Your task to perform on an android device: open sync settings in chrome Image 0: 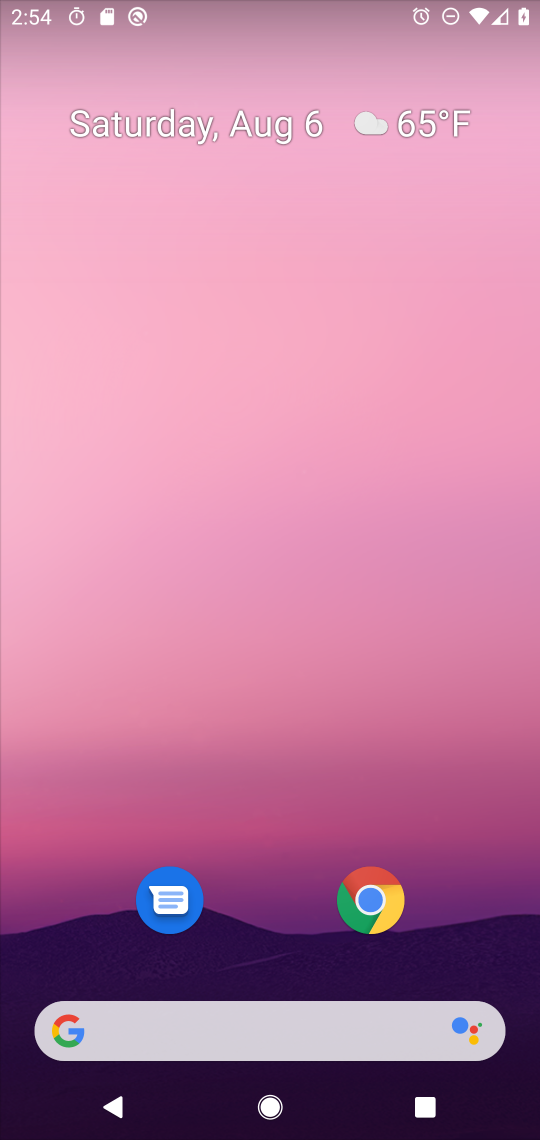
Step 0: click (370, 901)
Your task to perform on an android device: open sync settings in chrome Image 1: 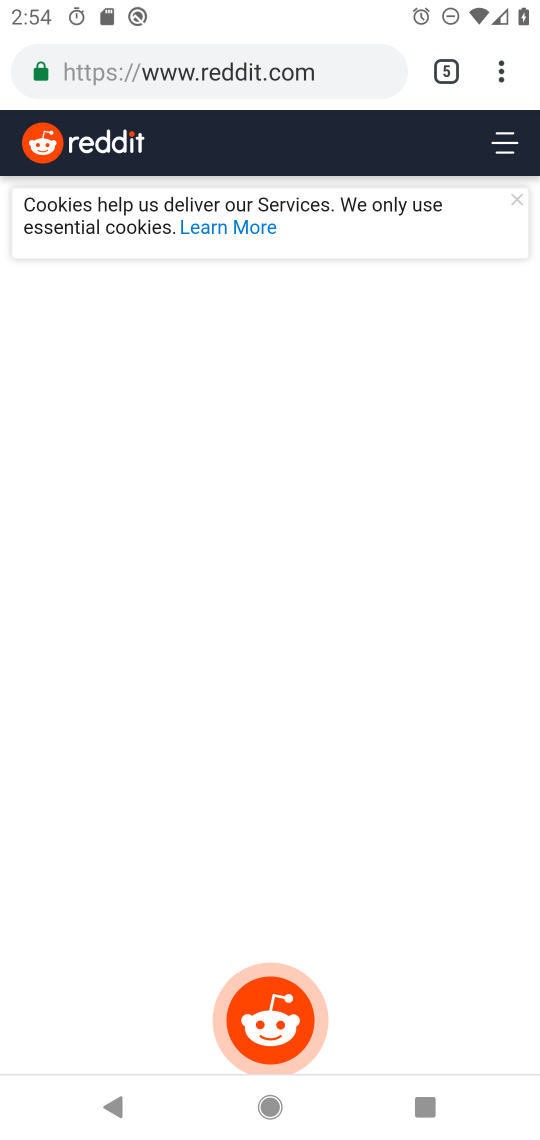
Step 1: click (500, 76)
Your task to perform on an android device: open sync settings in chrome Image 2: 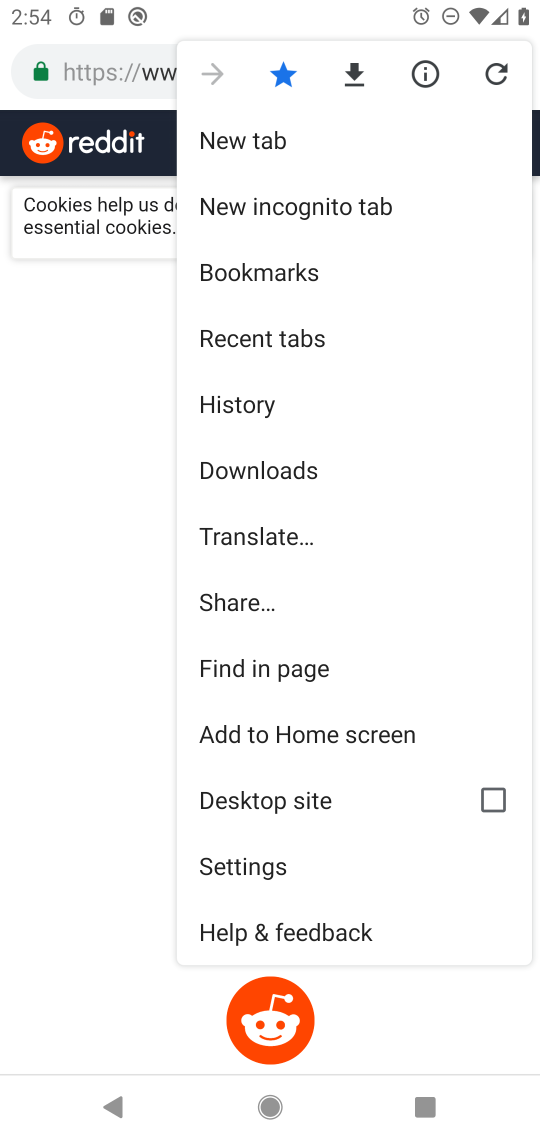
Step 2: click (259, 859)
Your task to perform on an android device: open sync settings in chrome Image 3: 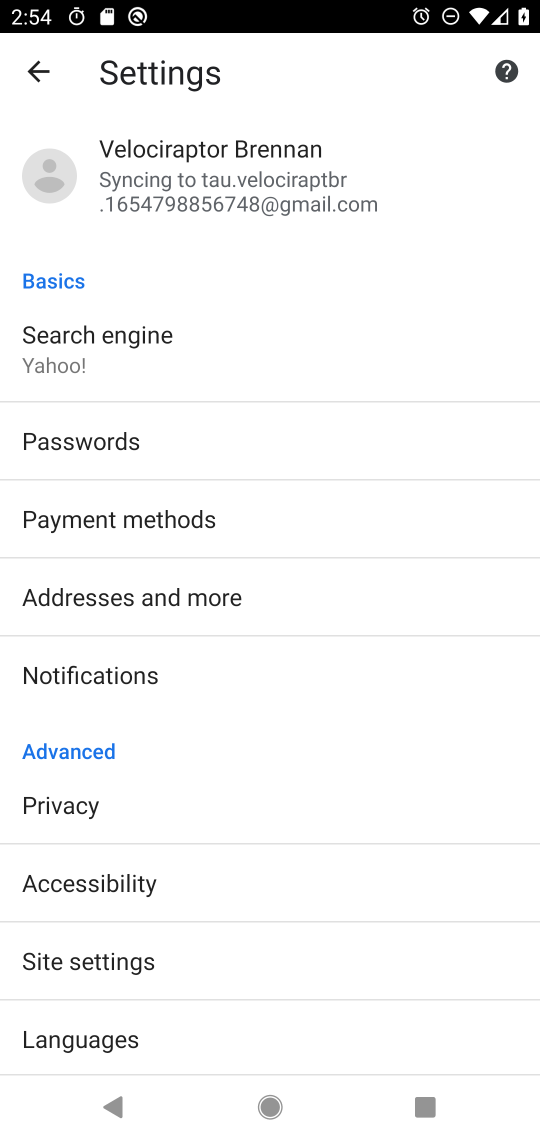
Step 3: click (69, 962)
Your task to perform on an android device: open sync settings in chrome Image 4: 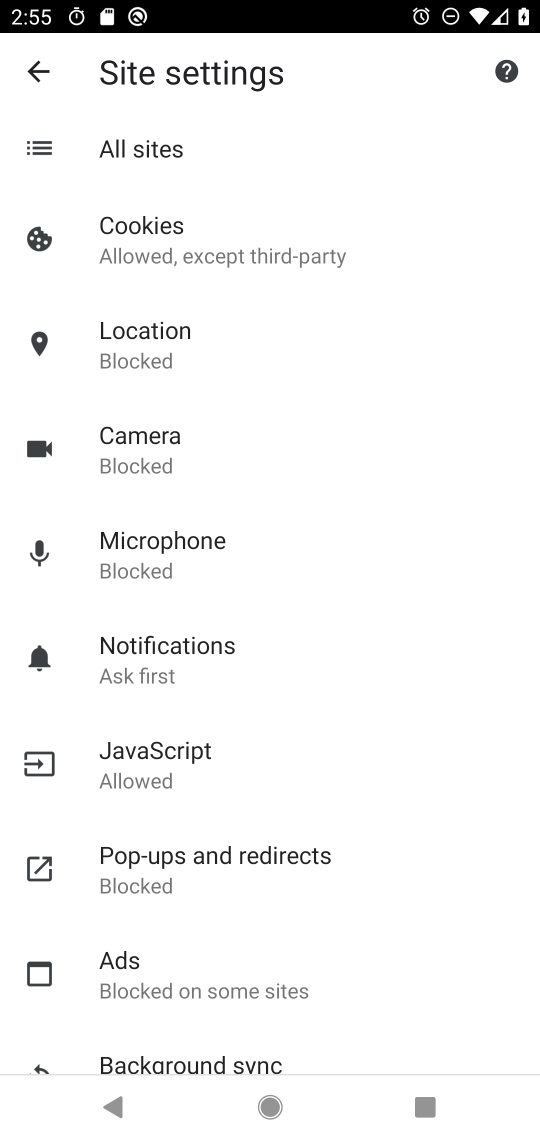
Step 4: drag from (152, 996) to (122, 518)
Your task to perform on an android device: open sync settings in chrome Image 5: 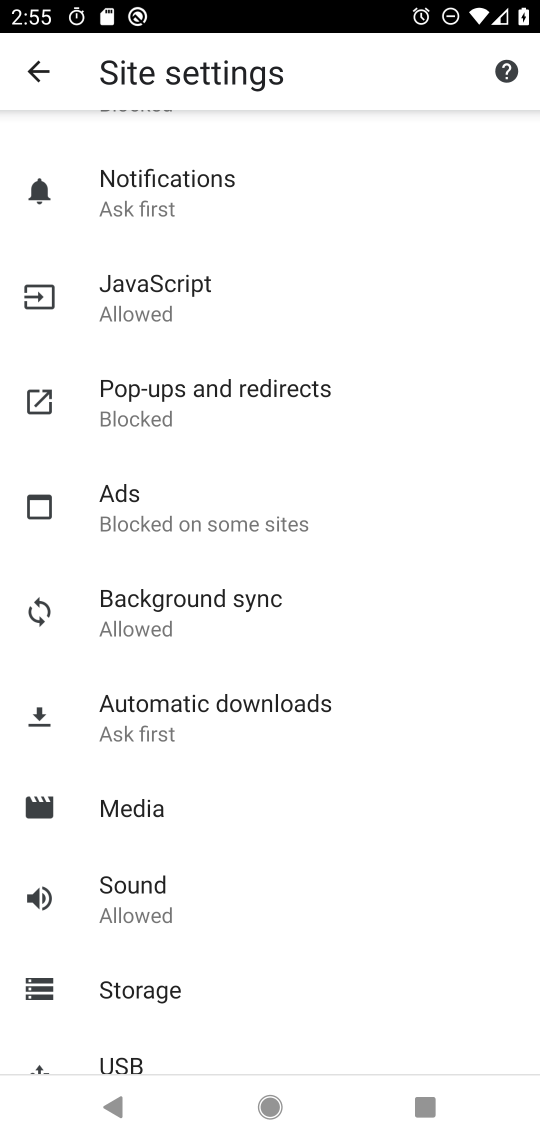
Step 5: drag from (121, 801) to (99, 442)
Your task to perform on an android device: open sync settings in chrome Image 6: 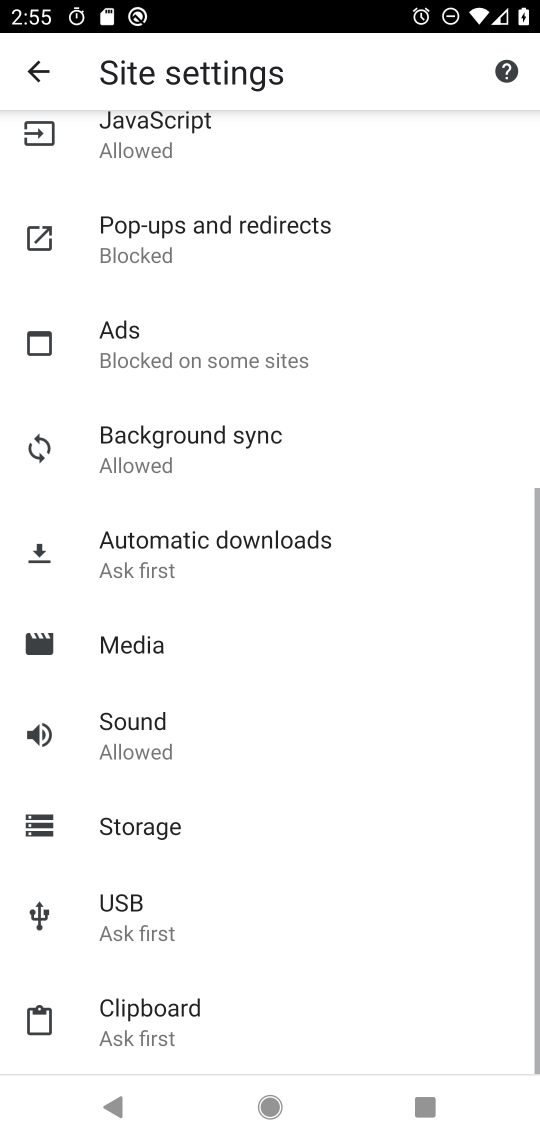
Step 6: drag from (119, 728) to (97, 438)
Your task to perform on an android device: open sync settings in chrome Image 7: 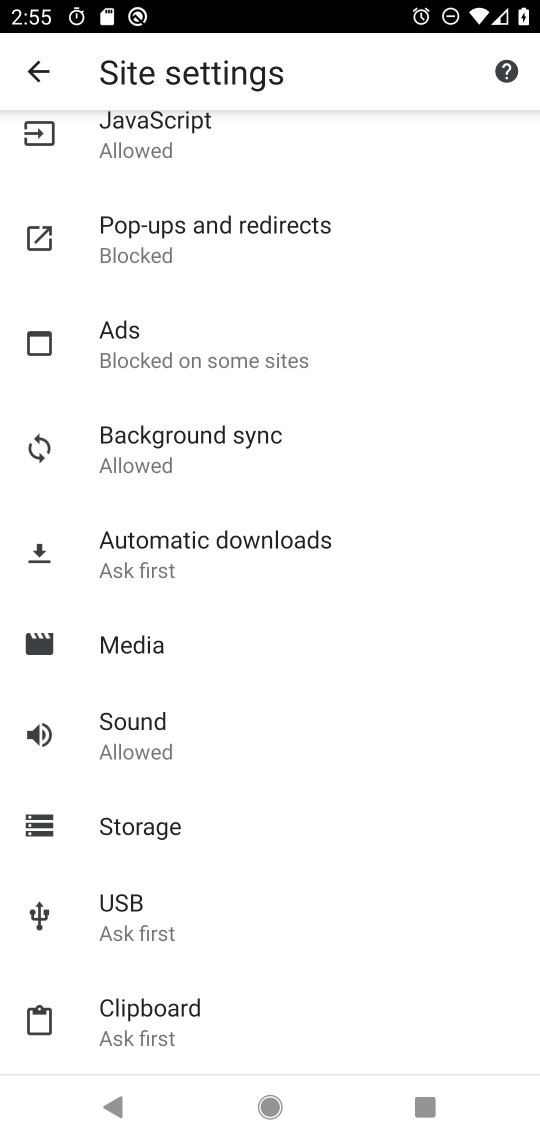
Step 7: click (164, 445)
Your task to perform on an android device: open sync settings in chrome Image 8: 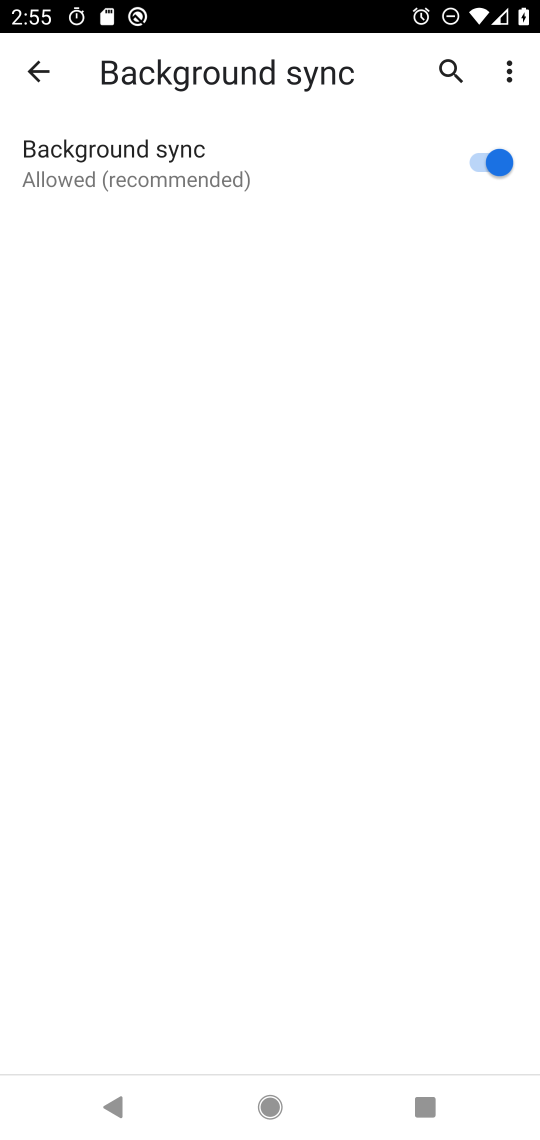
Step 8: task complete